Your task to perform on an android device: change notifications settings Image 0: 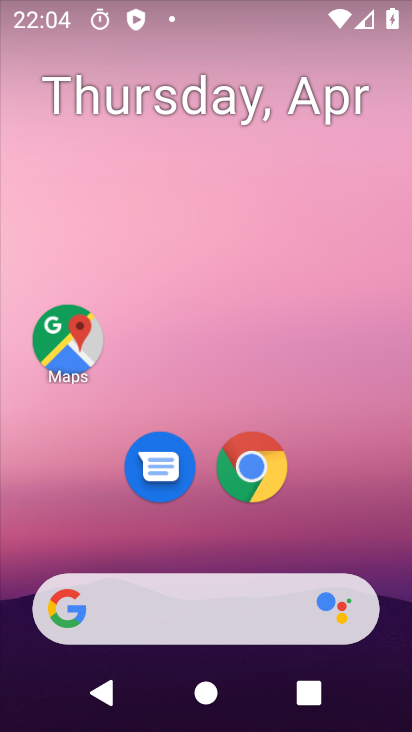
Step 0: drag from (250, 538) to (188, 28)
Your task to perform on an android device: change notifications settings Image 1: 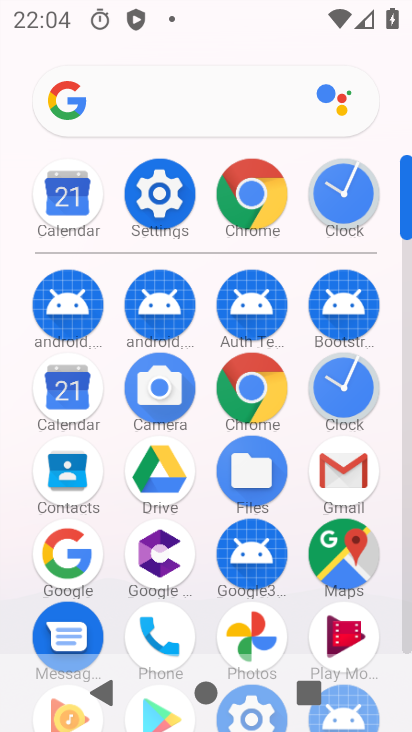
Step 1: click (148, 212)
Your task to perform on an android device: change notifications settings Image 2: 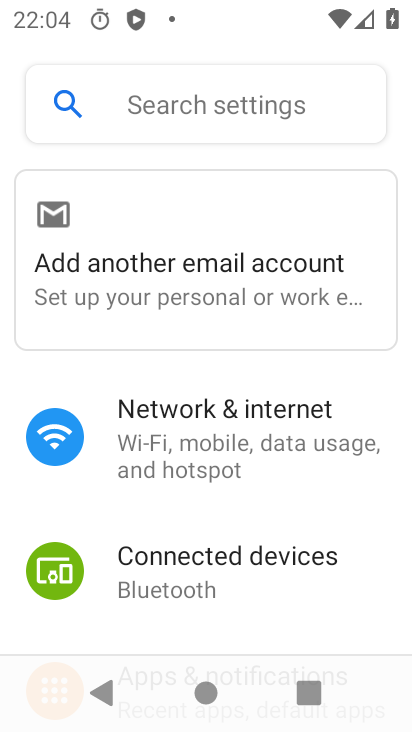
Step 2: drag from (217, 597) to (141, 35)
Your task to perform on an android device: change notifications settings Image 3: 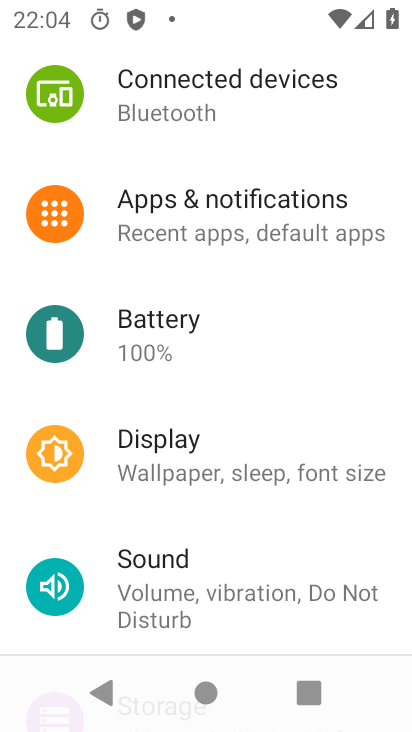
Step 3: click (179, 213)
Your task to perform on an android device: change notifications settings Image 4: 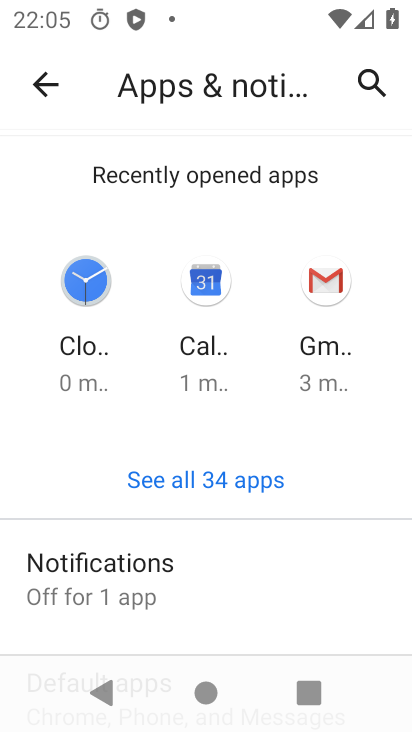
Step 4: click (139, 581)
Your task to perform on an android device: change notifications settings Image 5: 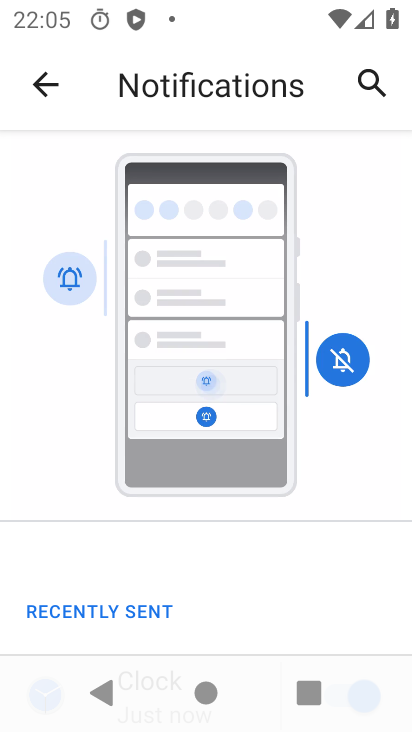
Step 5: task complete